Your task to perform on an android device: turn off smart reply in the gmail app Image 0: 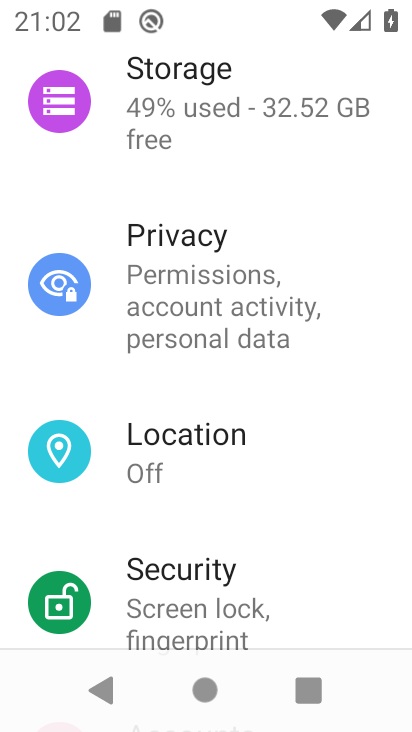
Step 0: press home button
Your task to perform on an android device: turn off smart reply in the gmail app Image 1: 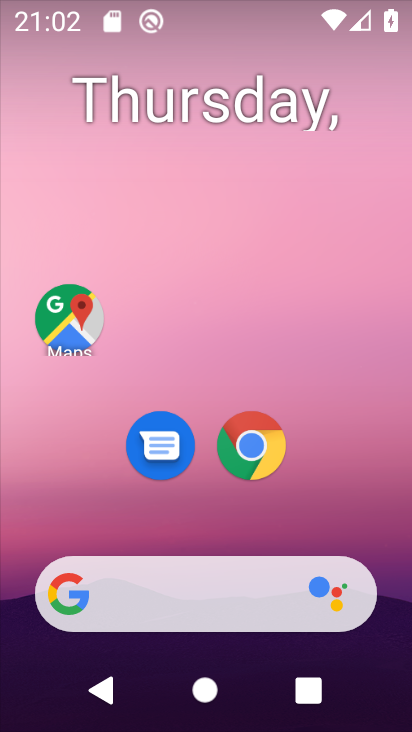
Step 1: drag from (335, 506) to (297, 59)
Your task to perform on an android device: turn off smart reply in the gmail app Image 2: 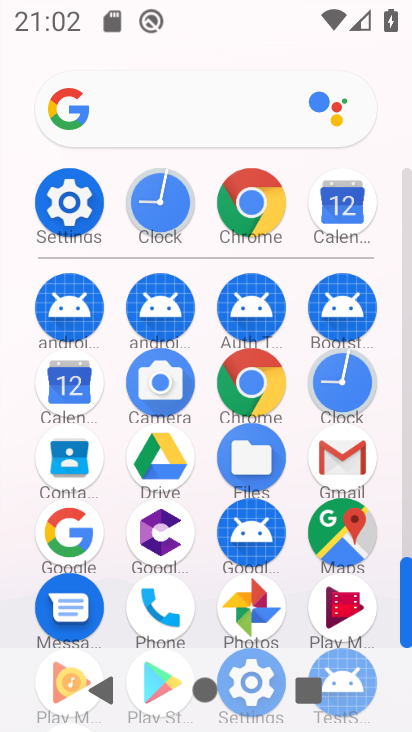
Step 2: click (346, 461)
Your task to perform on an android device: turn off smart reply in the gmail app Image 3: 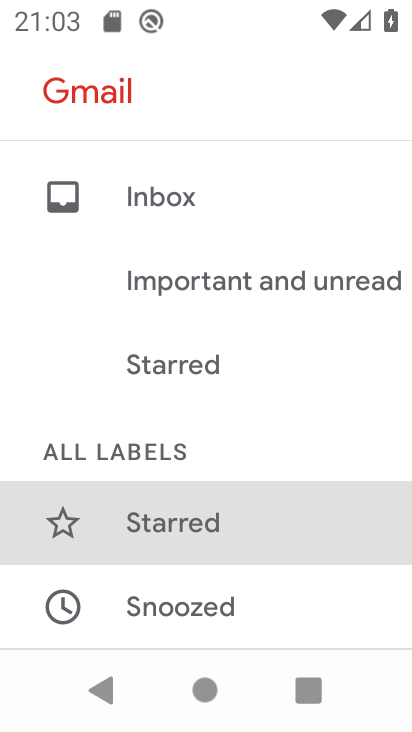
Step 3: drag from (183, 606) to (187, 125)
Your task to perform on an android device: turn off smart reply in the gmail app Image 4: 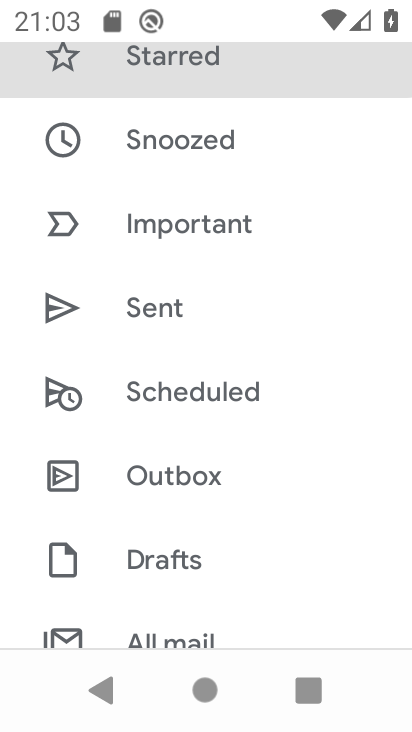
Step 4: drag from (227, 616) to (250, 195)
Your task to perform on an android device: turn off smart reply in the gmail app Image 5: 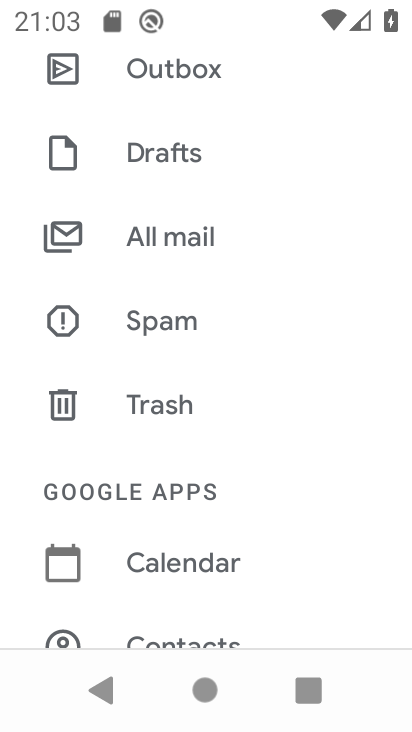
Step 5: drag from (223, 600) to (261, 212)
Your task to perform on an android device: turn off smart reply in the gmail app Image 6: 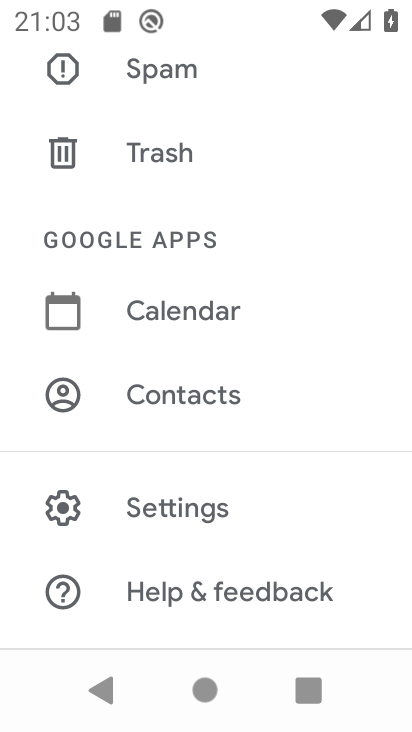
Step 6: click (161, 507)
Your task to perform on an android device: turn off smart reply in the gmail app Image 7: 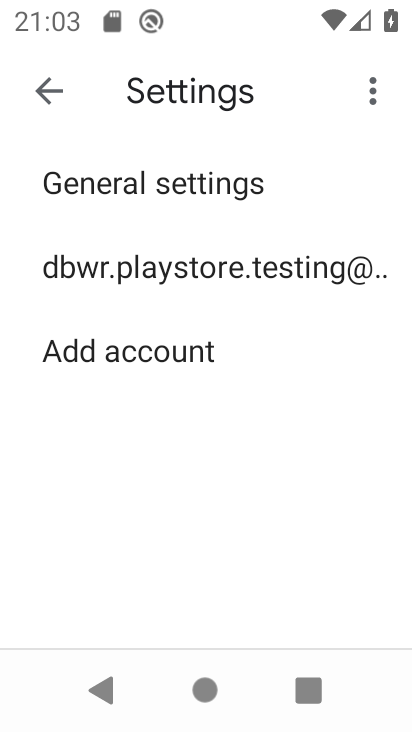
Step 7: click (157, 275)
Your task to perform on an android device: turn off smart reply in the gmail app Image 8: 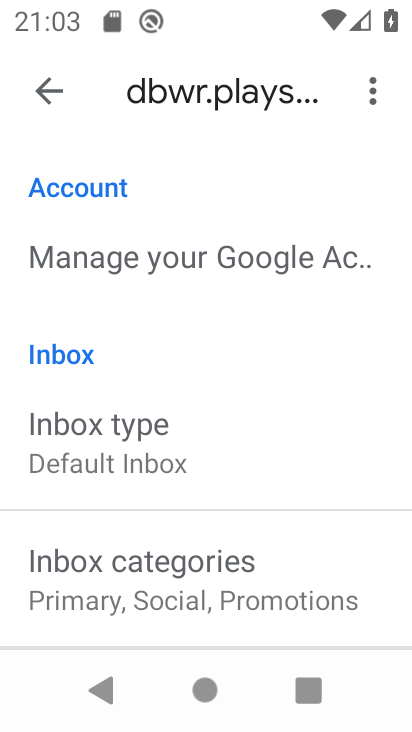
Step 8: drag from (150, 616) to (141, 168)
Your task to perform on an android device: turn off smart reply in the gmail app Image 9: 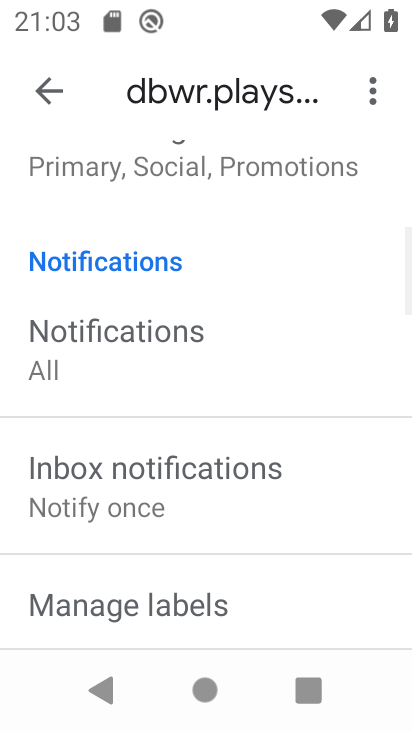
Step 9: drag from (154, 582) to (159, 265)
Your task to perform on an android device: turn off smart reply in the gmail app Image 10: 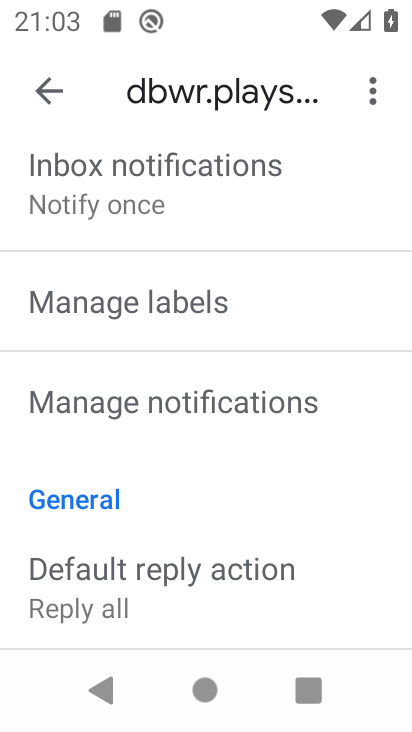
Step 10: drag from (161, 592) to (167, 298)
Your task to perform on an android device: turn off smart reply in the gmail app Image 11: 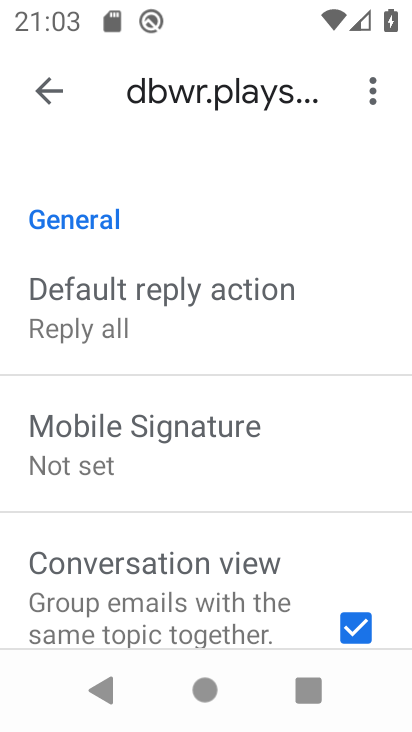
Step 11: drag from (122, 608) to (147, 310)
Your task to perform on an android device: turn off smart reply in the gmail app Image 12: 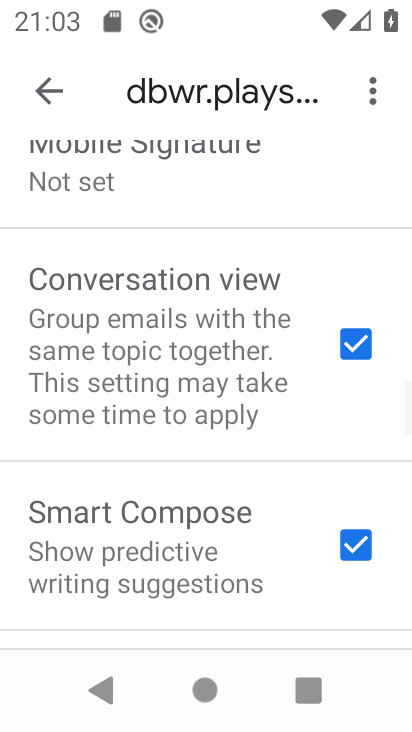
Step 12: drag from (122, 582) to (133, 284)
Your task to perform on an android device: turn off smart reply in the gmail app Image 13: 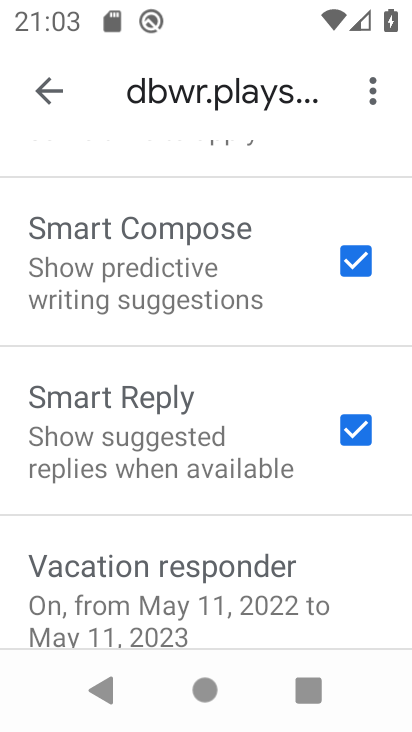
Step 13: click (361, 435)
Your task to perform on an android device: turn off smart reply in the gmail app Image 14: 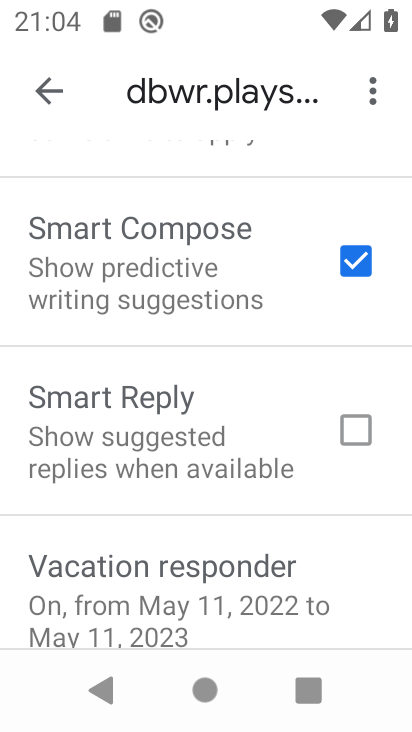
Step 14: task complete